Your task to perform on an android device: clear history in the chrome app Image 0: 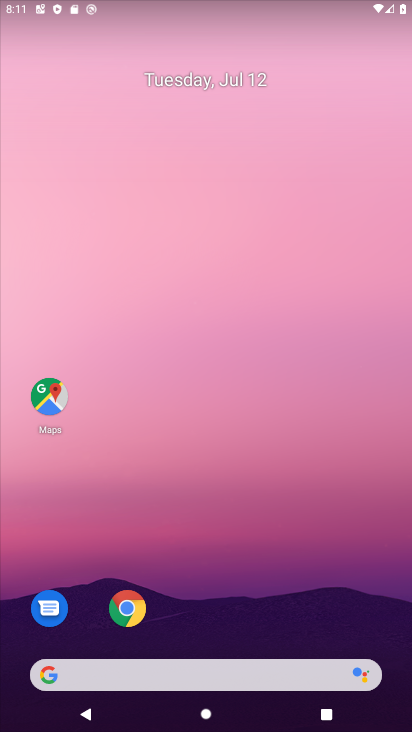
Step 0: click (126, 603)
Your task to perform on an android device: clear history in the chrome app Image 1: 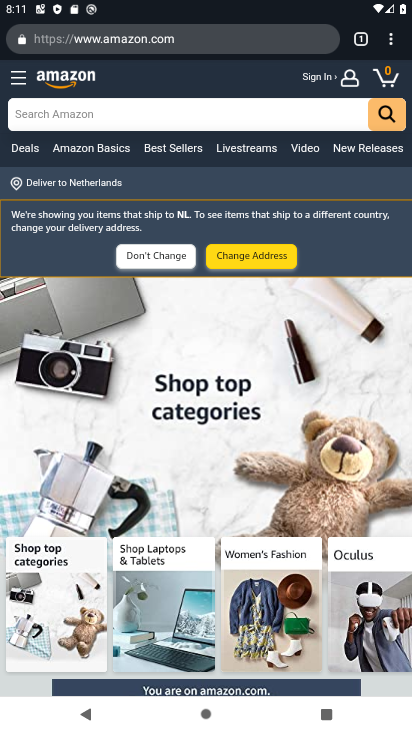
Step 1: click (395, 36)
Your task to perform on an android device: clear history in the chrome app Image 2: 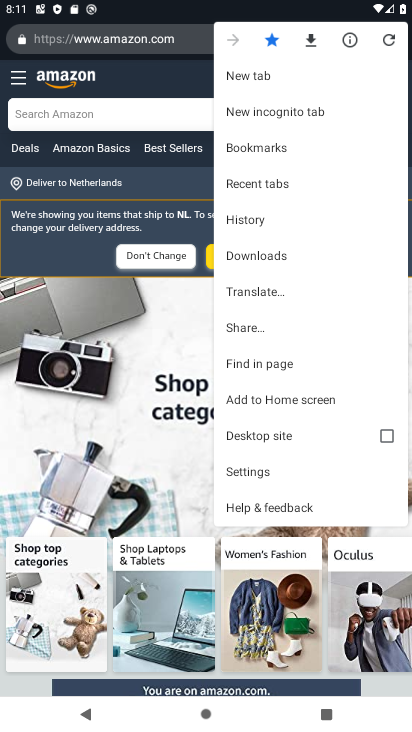
Step 2: click (259, 234)
Your task to perform on an android device: clear history in the chrome app Image 3: 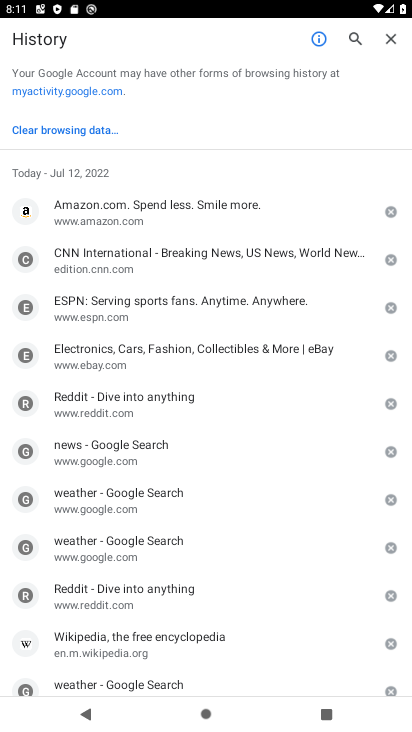
Step 3: click (71, 124)
Your task to perform on an android device: clear history in the chrome app Image 4: 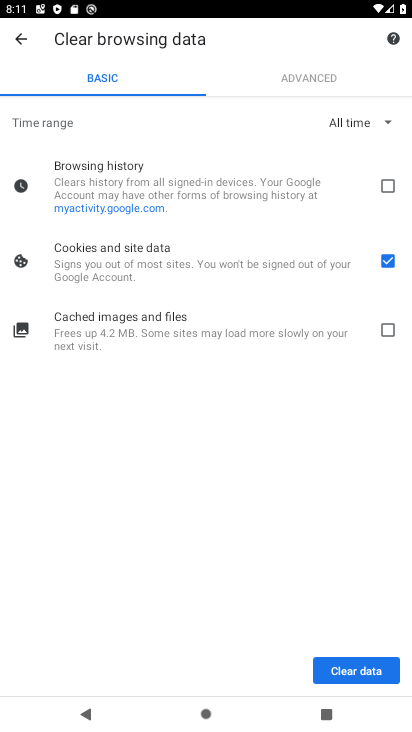
Step 4: click (387, 265)
Your task to perform on an android device: clear history in the chrome app Image 5: 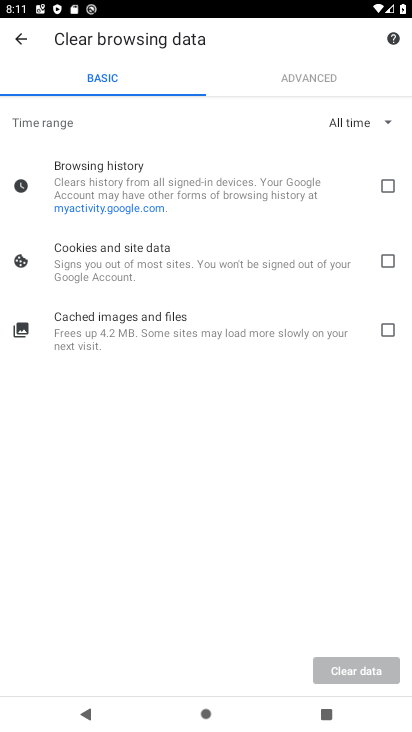
Step 5: click (388, 191)
Your task to perform on an android device: clear history in the chrome app Image 6: 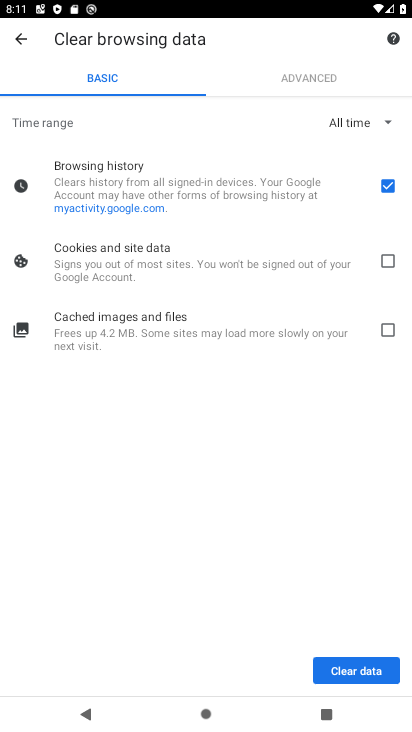
Step 6: click (343, 665)
Your task to perform on an android device: clear history in the chrome app Image 7: 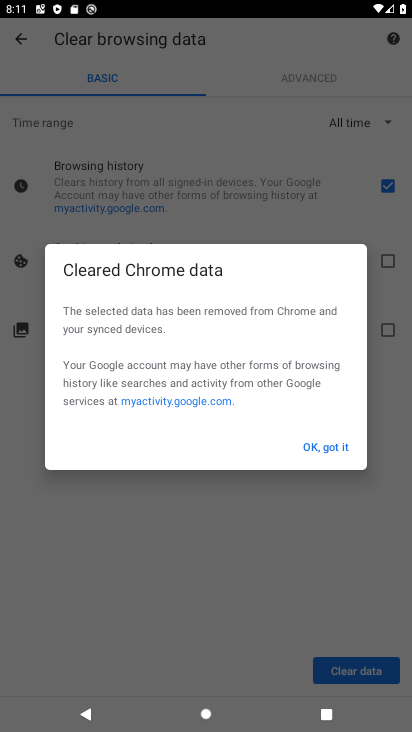
Step 7: click (336, 452)
Your task to perform on an android device: clear history in the chrome app Image 8: 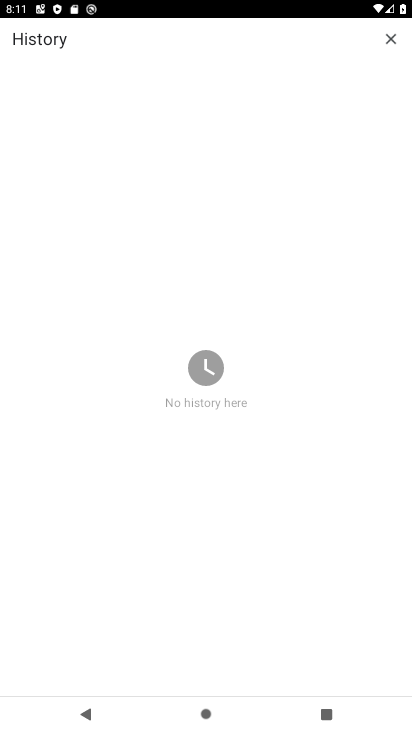
Step 8: task complete